Your task to perform on an android device: What's the weather going to be tomorrow? Image 0: 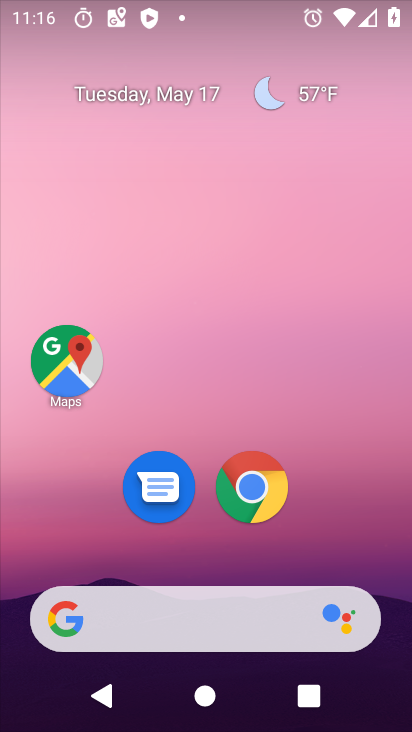
Step 0: drag from (196, 725) to (198, 7)
Your task to perform on an android device: What's the weather going to be tomorrow? Image 1: 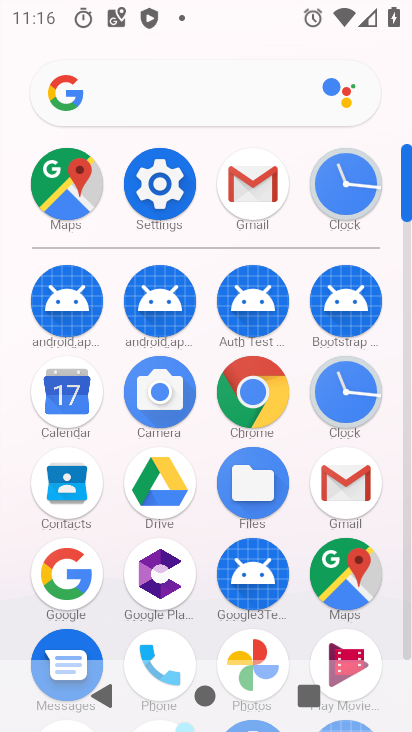
Step 1: click (75, 571)
Your task to perform on an android device: What's the weather going to be tomorrow? Image 2: 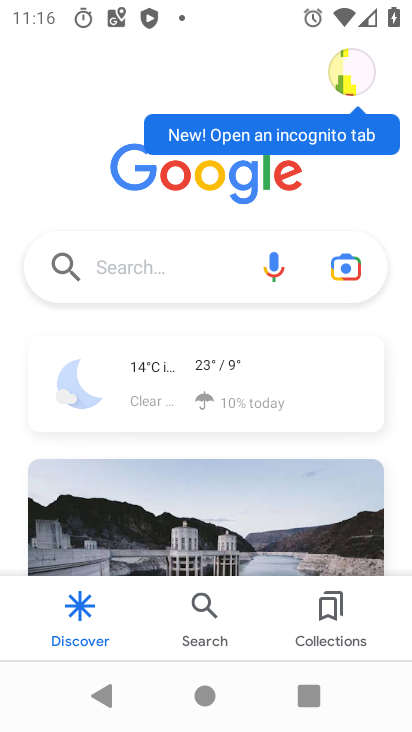
Step 2: click (204, 381)
Your task to perform on an android device: What's the weather going to be tomorrow? Image 3: 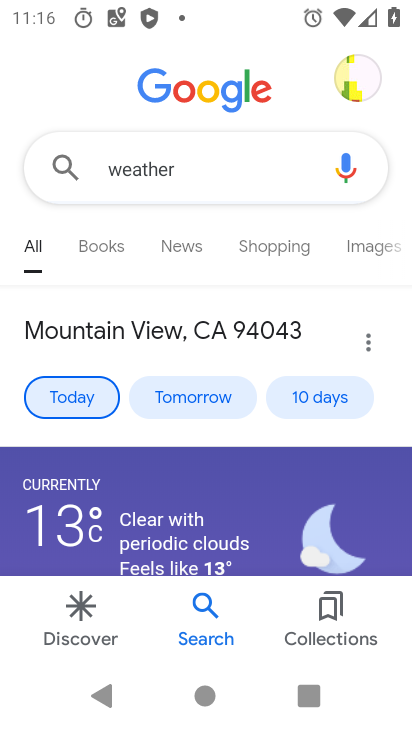
Step 3: click (200, 396)
Your task to perform on an android device: What's the weather going to be tomorrow? Image 4: 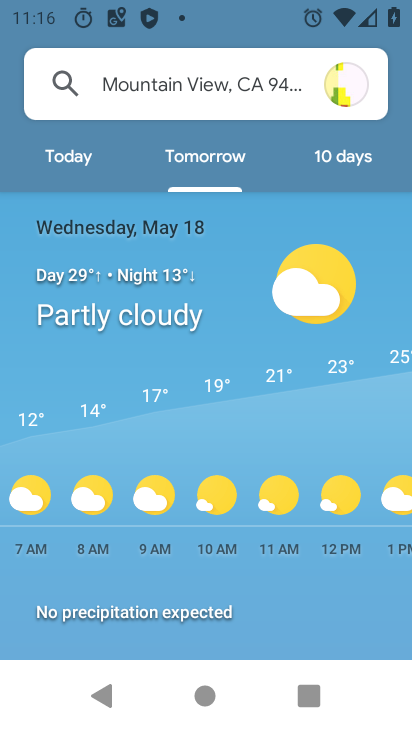
Step 4: task complete